Your task to perform on an android device: Open calendar and show me the fourth week of next month Image 0: 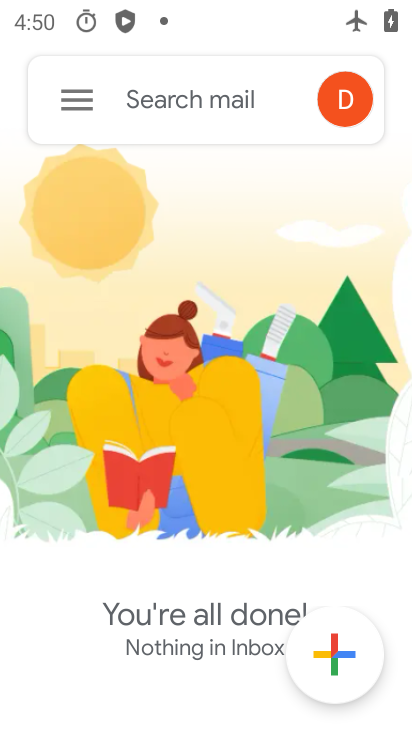
Step 0: press home button
Your task to perform on an android device: Open calendar and show me the fourth week of next month Image 1: 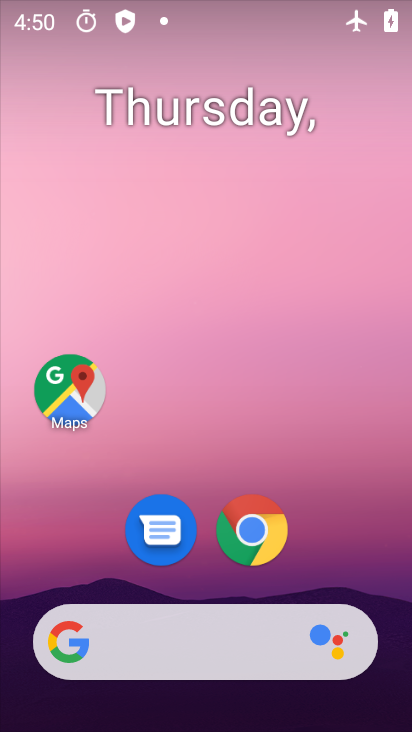
Step 1: drag from (295, 641) to (382, 396)
Your task to perform on an android device: Open calendar and show me the fourth week of next month Image 2: 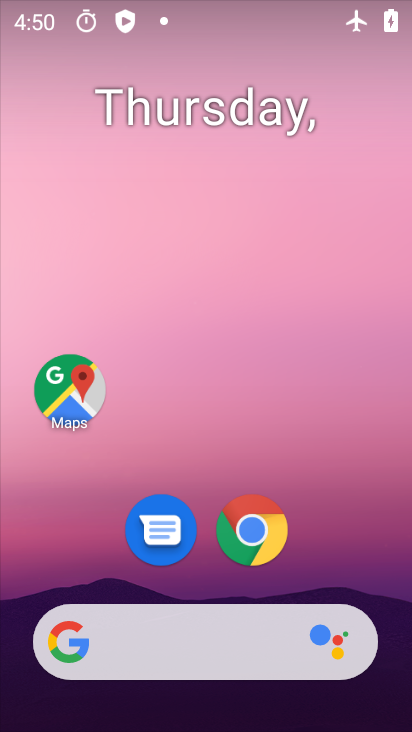
Step 2: drag from (206, 684) to (136, 9)
Your task to perform on an android device: Open calendar and show me the fourth week of next month Image 3: 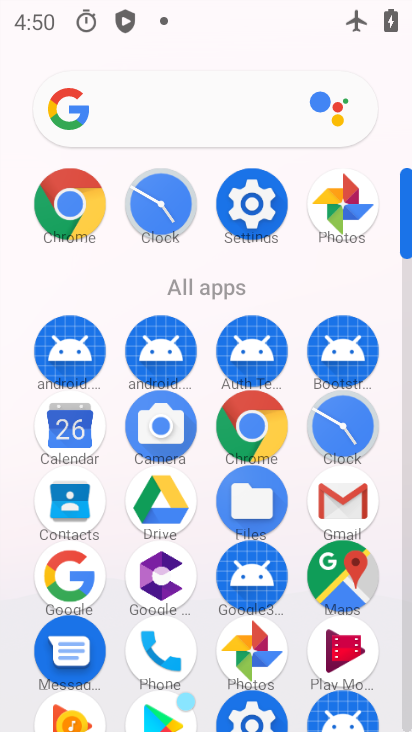
Step 3: click (88, 426)
Your task to perform on an android device: Open calendar and show me the fourth week of next month Image 4: 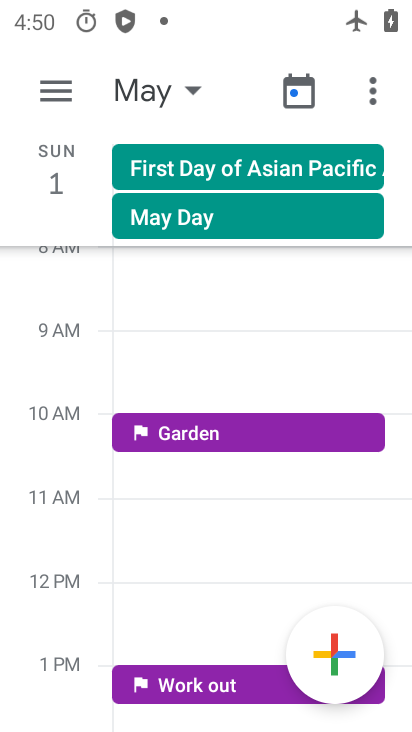
Step 4: click (192, 97)
Your task to perform on an android device: Open calendar and show me the fourth week of next month Image 5: 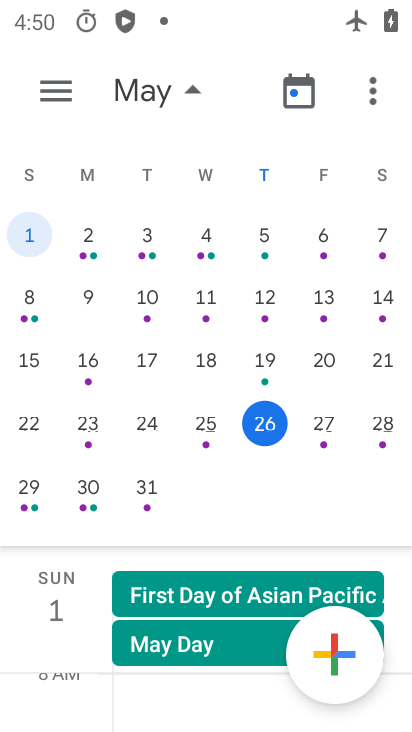
Step 5: click (269, 439)
Your task to perform on an android device: Open calendar and show me the fourth week of next month Image 6: 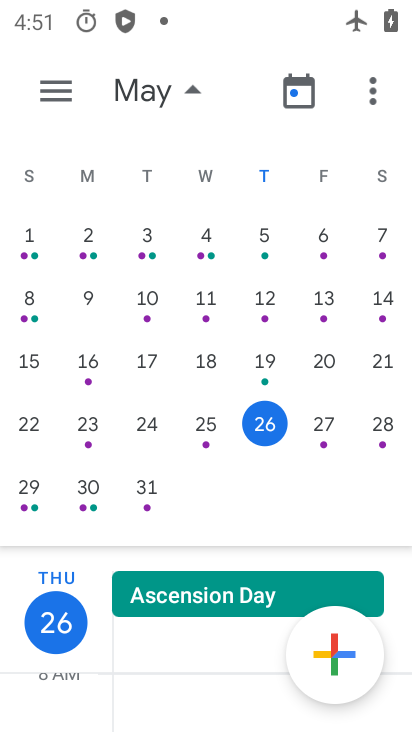
Step 6: click (43, 78)
Your task to perform on an android device: Open calendar and show me the fourth week of next month Image 7: 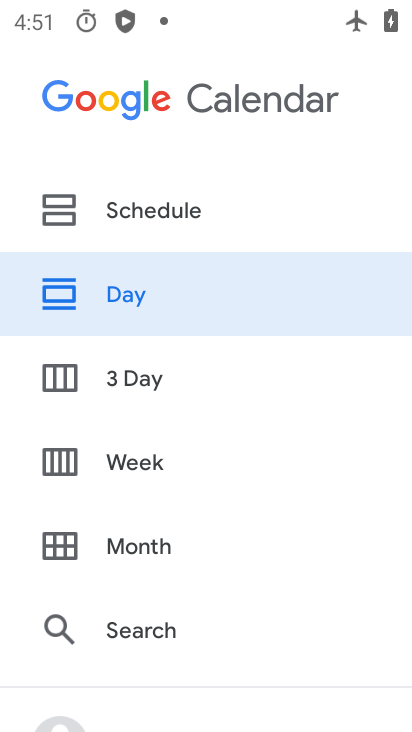
Step 7: drag from (407, 389) to (17, 468)
Your task to perform on an android device: Open calendar and show me the fourth week of next month Image 8: 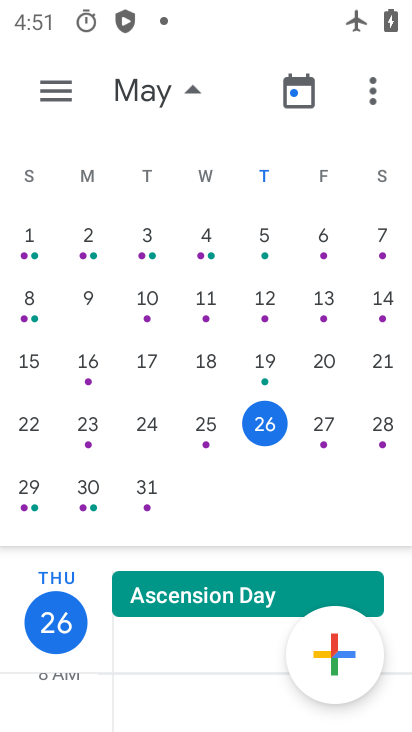
Step 8: drag from (376, 400) to (11, 437)
Your task to perform on an android device: Open calendar and show me the fourth week of next month Image 9: 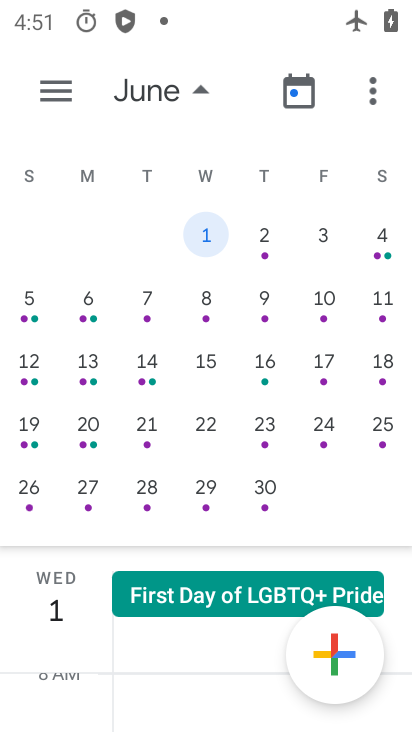
Step 9: click (265, 426)
Your task to perform on an android device: Open calendar and show me the fourth week of next month Image 10: 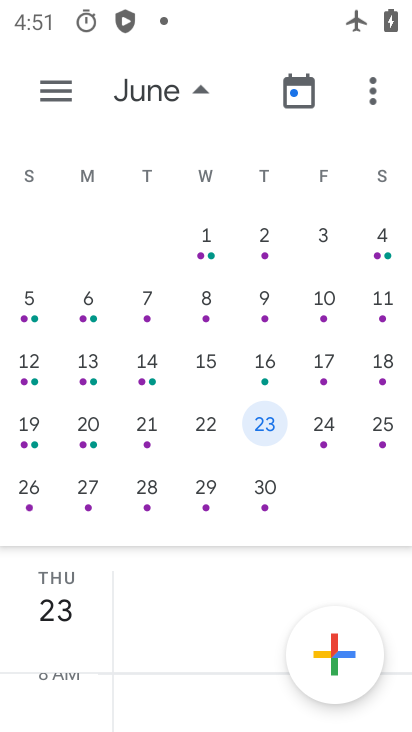
Step 10: click (58, 92)
Your task to perform on an android device: Open calendar and show me the fourth week of next month Image 11: 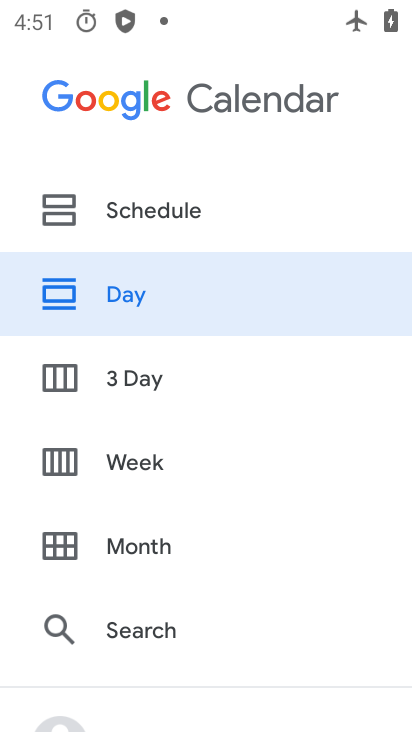
Step 11: click (150, 310)
Your task to perform on an android device: Open calendar and show me the fourth week of next month Image 12: 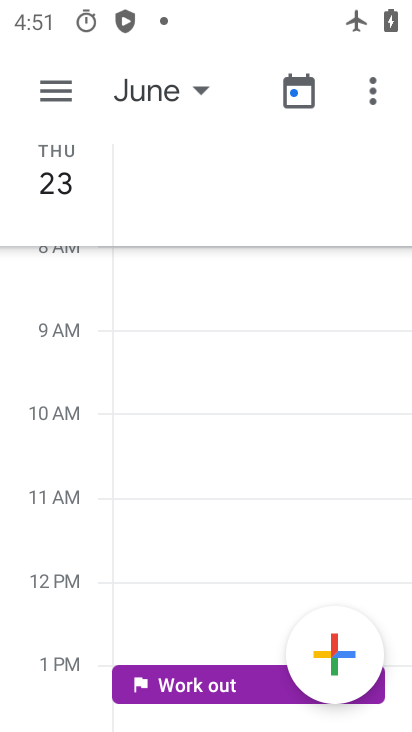
Step 12: click (57, 98)
Your task to perform on an android device: Open calendar and show me the fourth week of next month Image 13: 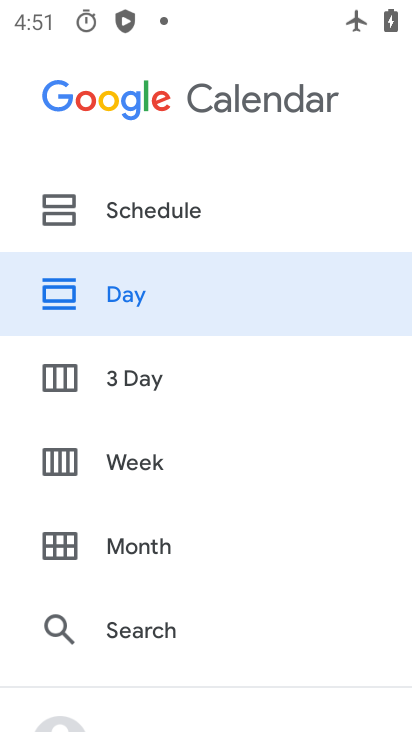
Step 13: click (123, 464)
Your task to perform on an android device: Open calendar and show me the fourth week of next month Image 14: 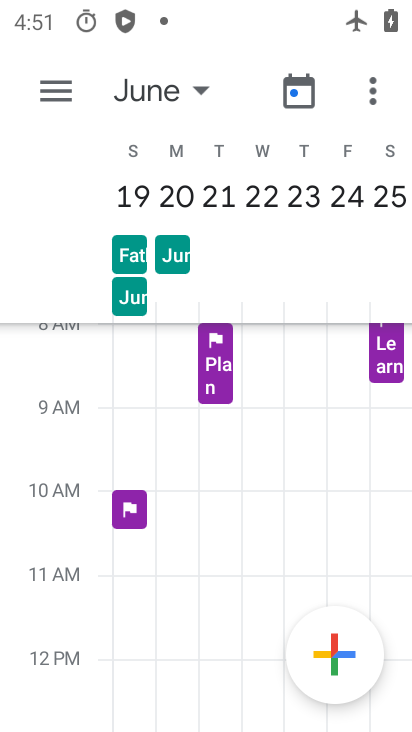
Step 14: task complete